Your task to perform on an android device: Open display settings Image 0: 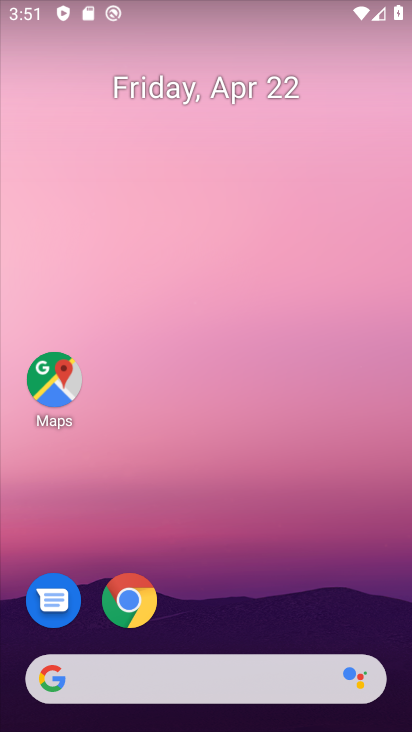
Step 0: drag from (314, 581) to (251, 210)
Your task to perform on an android device: Open display settings Image 1: 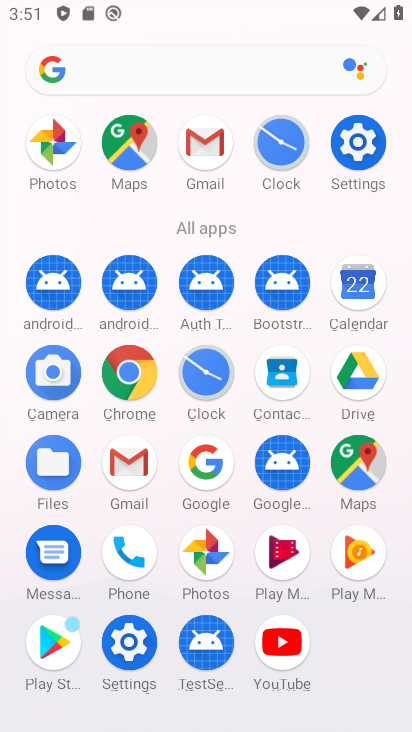
Step 1: click (251, 210)
Your task to perform on an android device: Open display settings Image 2: 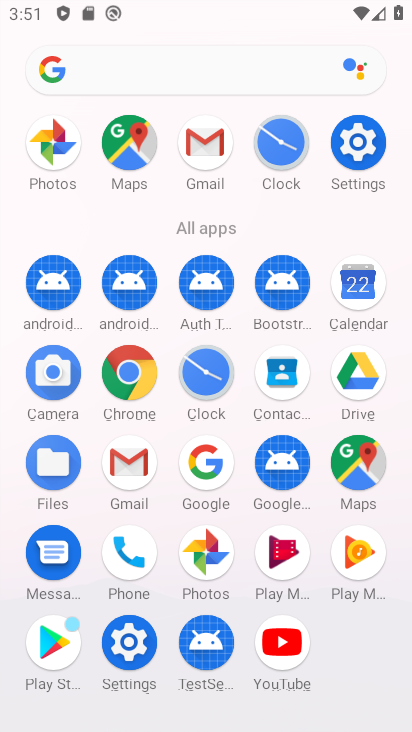
Step 2: click (349, 168)
Your task to perform on an android device: Open display settings Image 3: 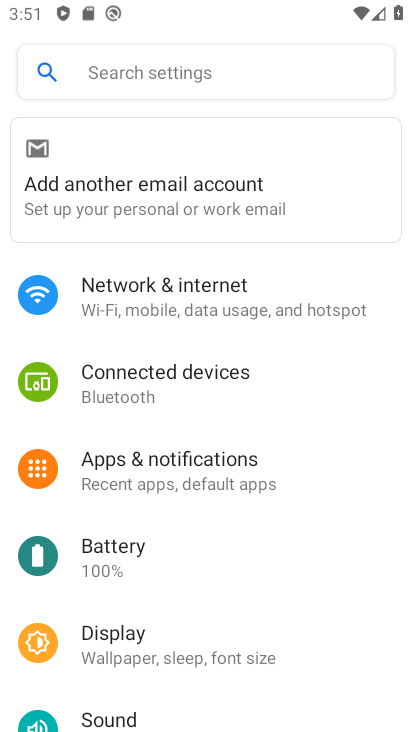
Step 3: click (230, 650)
Your task to perform on an android device: Open display settings Image 4: 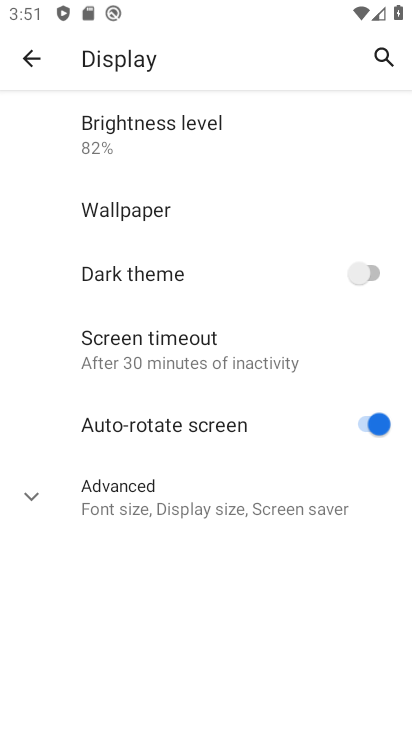
Step 4: task complete